Your task to perform on an android device: turn on showing notifications on the lock screen Image 0: 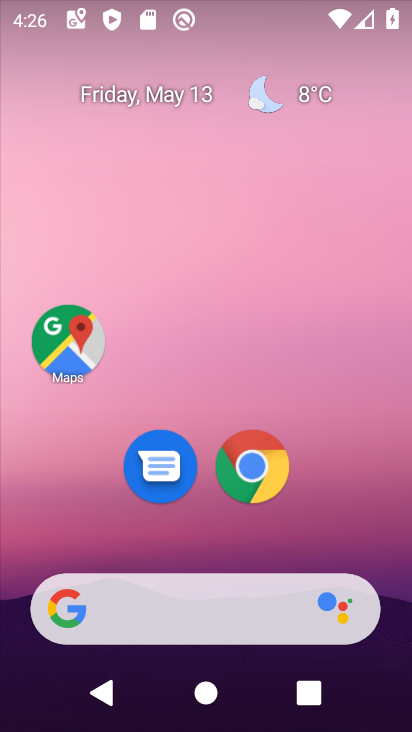
Step 0: drag from (399, 638) to (297, 82)
Your task to perform on an android device: turn on showing notifications on the lock screen Image 1: 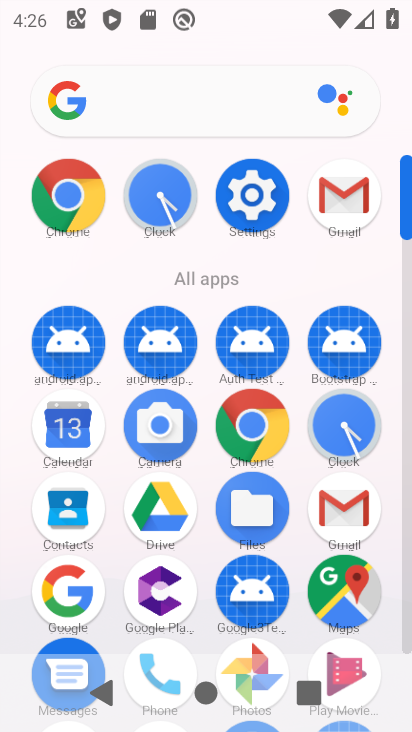
Step 1: click (408, 646)
Your task to perform on an android device: turn on showing notifications on the lock screen Image 2: 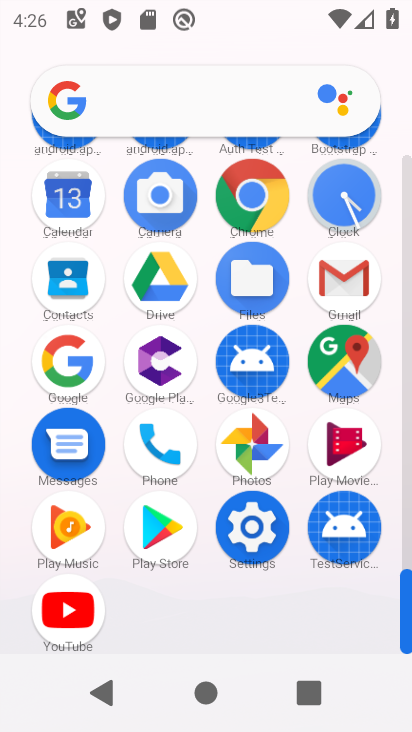
Step 2: click (255, 528)
Your task to perform on an android device: turn on showing notifications on the lock screen Image 3: 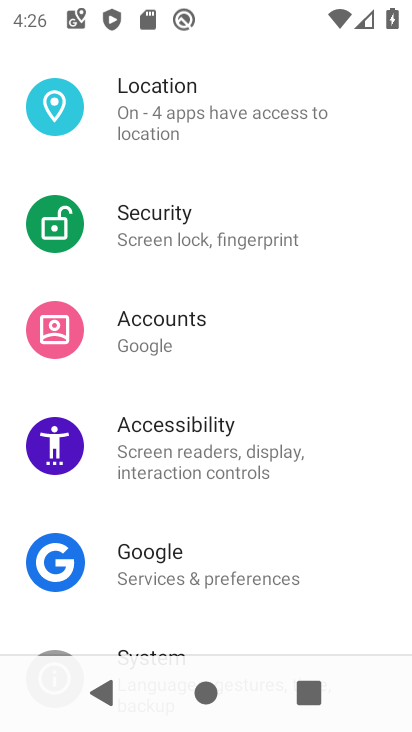
Step 3: drag from (357, 163) to (326, 528)
Your task to perform on an android device: turn on showing notifications on the lock screen Image 4: 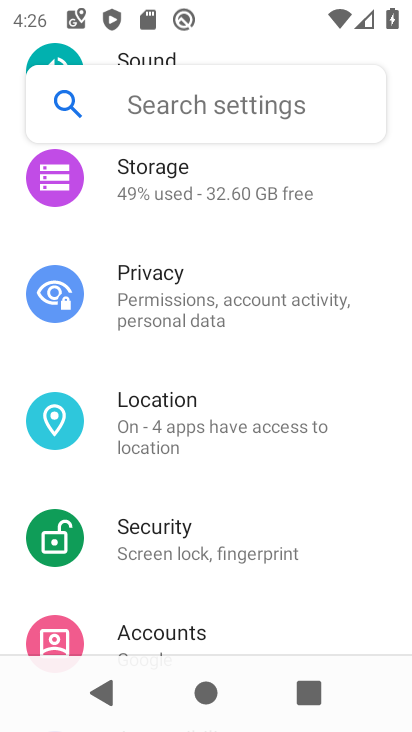
Step 4: drag from (354, 167) to (346, 527)
Your task to perform on an android device: turn on showing notifications on the lock screen Image 5: 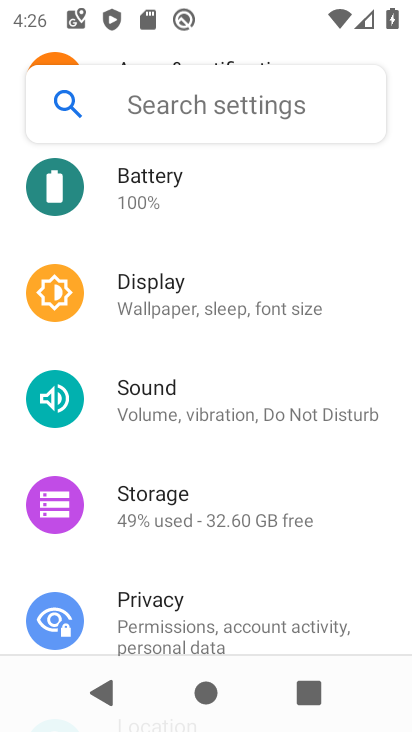
Step 5: drag from (326, 238) to (338, 602)
Your task to perform on an android device: turn on showing notifications on the lock screen Image 6: 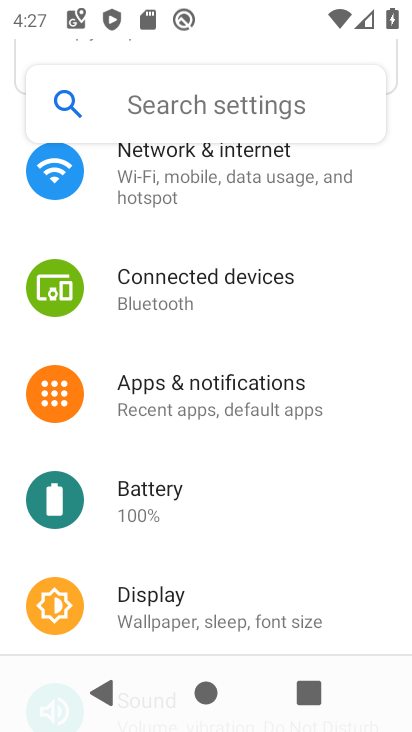
Step 6: click (180, 385)
Your task to perform on an android device: turn on showing notifications on the lock screen Image 7: 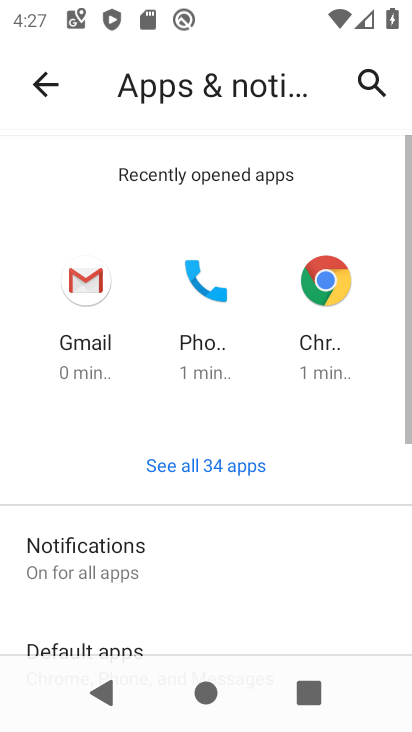
Step 7: click (113, 562)
Your task to perform on an android device: turn on showing notifications on the lock screen Image 8: 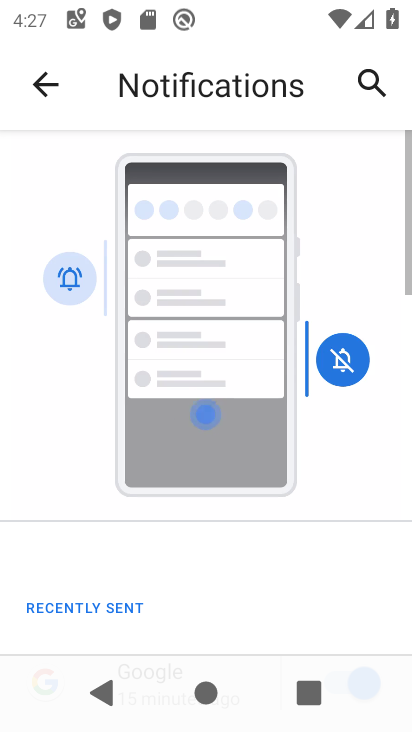
Step 8: drag from (293, 610) to (265, 211)
Your task to perform on an android device: turn on showing notifications on the lock screen Image 9: 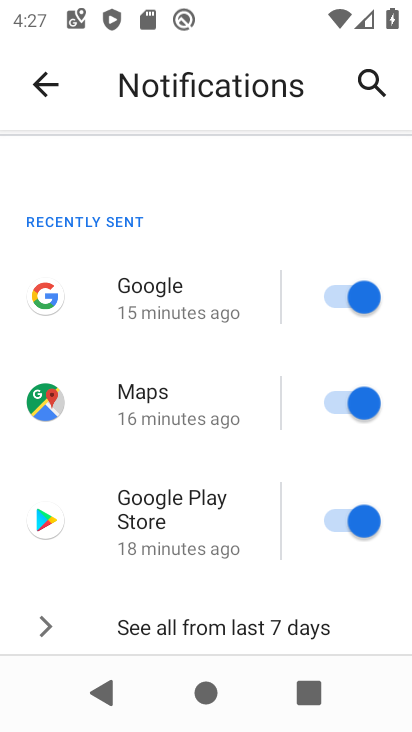
Step 9: drag from (277, 604) to (253, 130)
Your task to perform on an android device: turn on showing notifications on the lock screen Image 10: 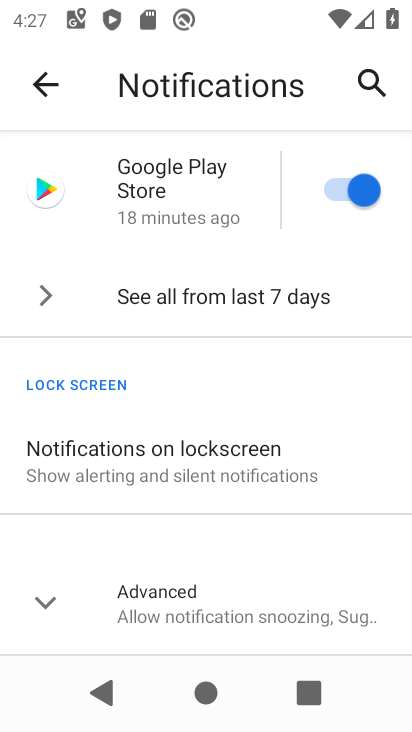
Step 10: click (114, 460)
Your task to perform on an android device: turn on showing notifications on the lock screen Image 11: 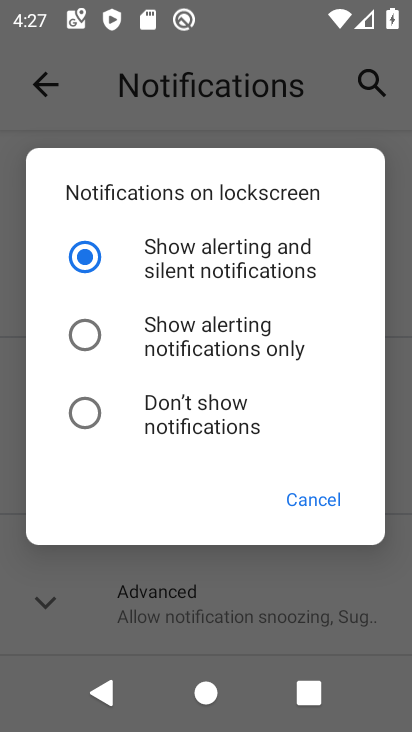
Step 11: task complete